Your task to perform on an android device: make emails show in primary in the gmail app Image 0: 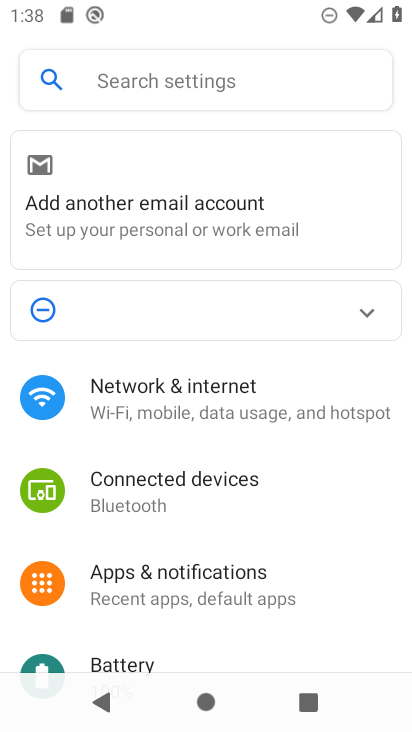
Step 0: press home button
Your task to perform on an android device: make emails show in primary in the gmail app Image 1: 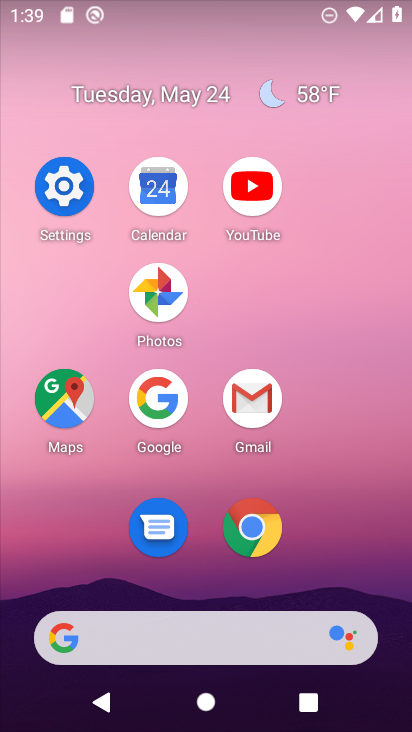
Step 1: click (255, 398)
Your task to perform on an android device: make emails show in primary in the gmail app Image 2: 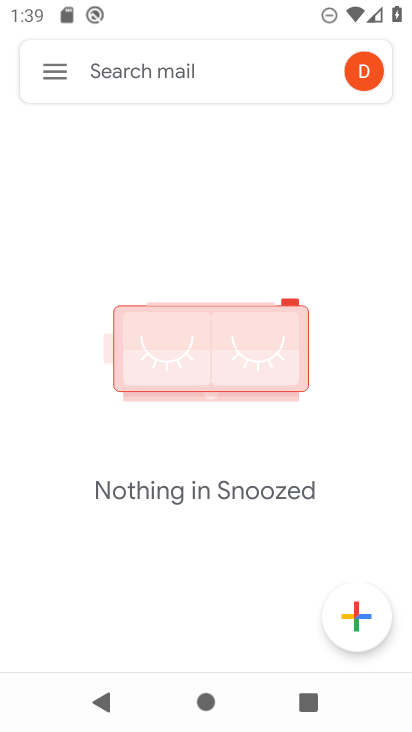
Step 2: click (58, 68)
Your task to perform on an android device: make emails show in primary in the gmail app Image 3: 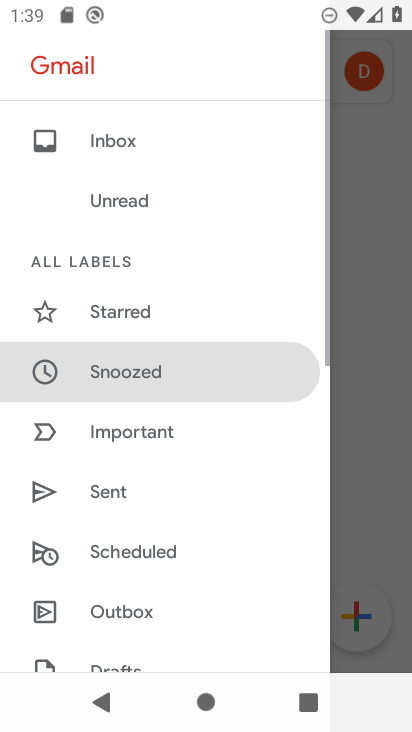
Step 3: drag from (158, 576) to (240, 209)
Your task to perform on an android device: make emails show in primary in the gmail app Image 4: 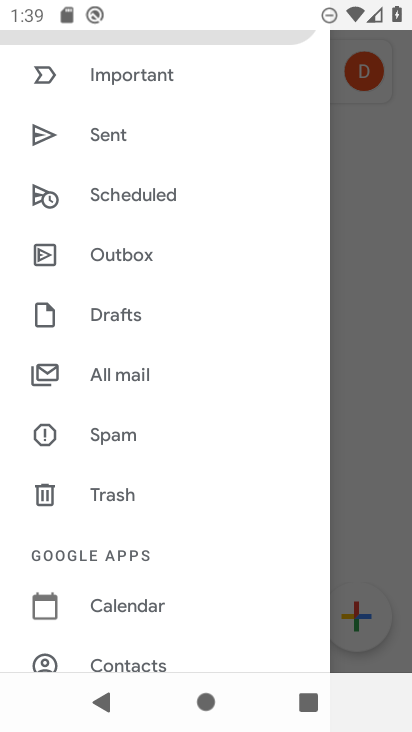
Step 4: drag from (132, 590) to (142, 261)
Your task to perform on an android device: make emails show in primary in the gmail app Image 5: 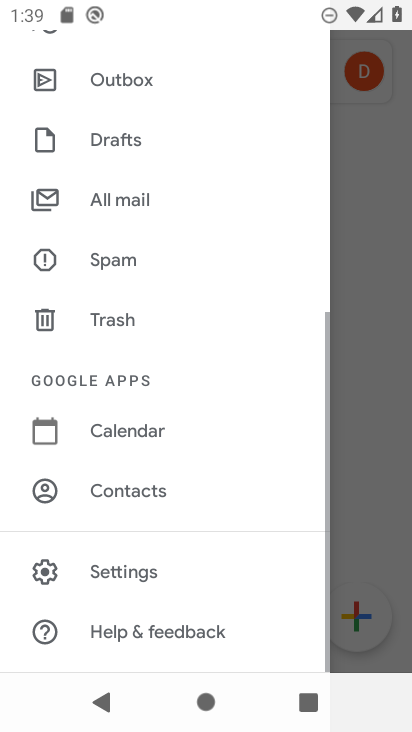
Step 5: click (133, 569)
Your task to perform on an android device: make emails show in primary in the gmail app Image 6: 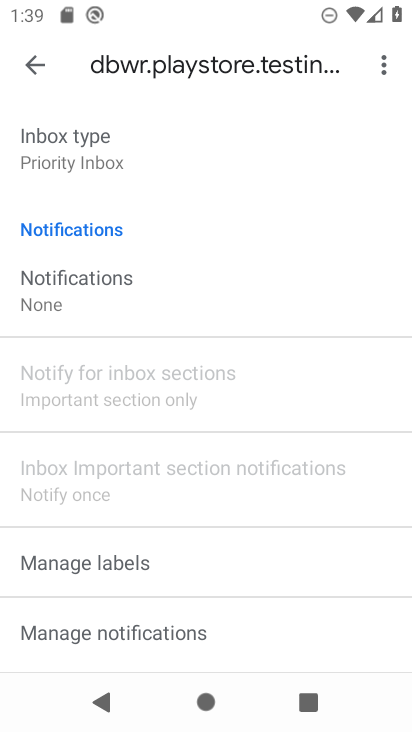
Step 6: drag from (133, 569) to (145, 193)
Your task to perform on an android device: make emails show in primary in the gmail app Image 7: 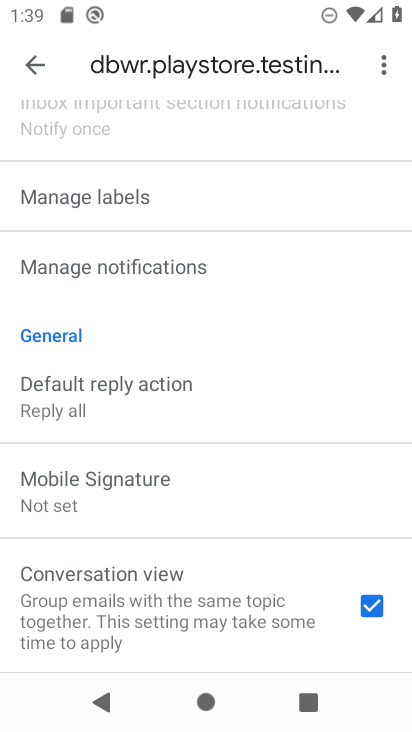
Step 7: drag from (143, 558) to (174, 186)
Your task to perform on an android device: make emails show in primary in the gmail app Image 8: 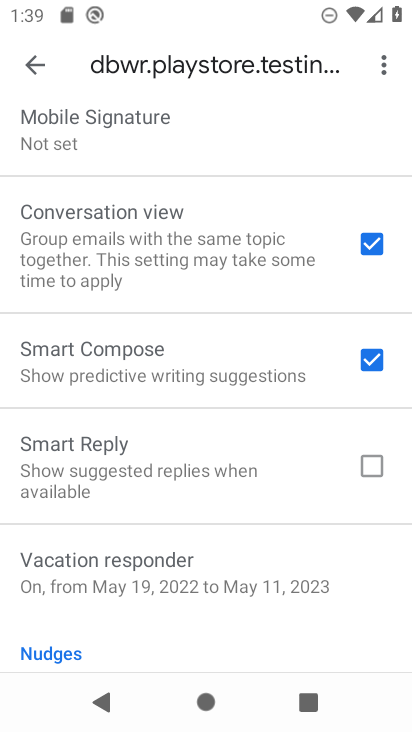
Step 8: drag from (184, 250) to (165, 657)
Your task to perform on an android device: make emails show in primary in the gmail app Image 9: 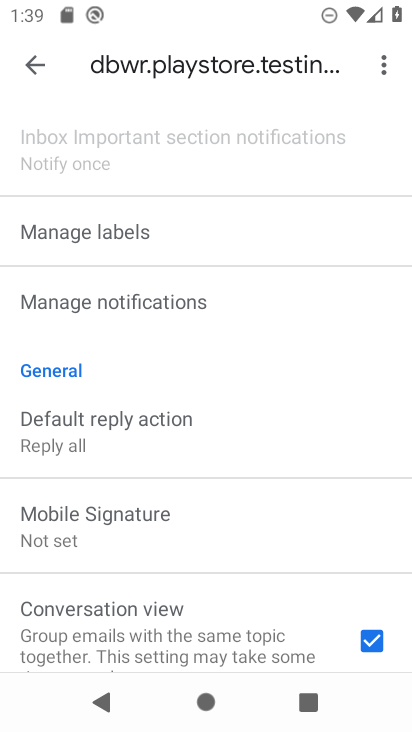
Step 9: drag from (239, 319) to (225, 650)
Your task to perform on an android device: make emails show in primary in the gmail app Image 10: 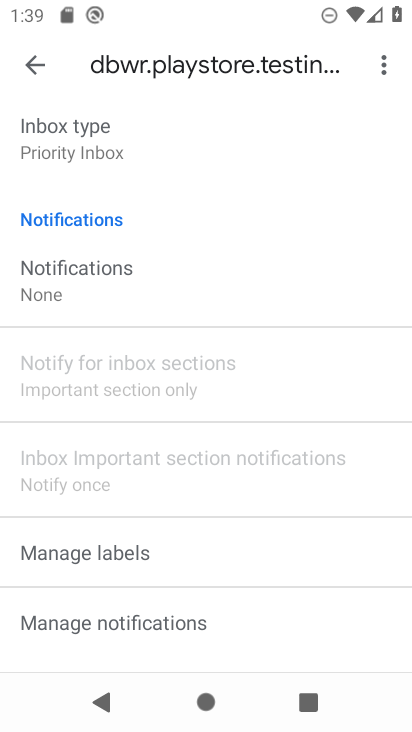
Step 10: drag from (198, 138) to (202, 284)
Your task to perform on an android device: make emails show in primary in the gmail app Image 11: 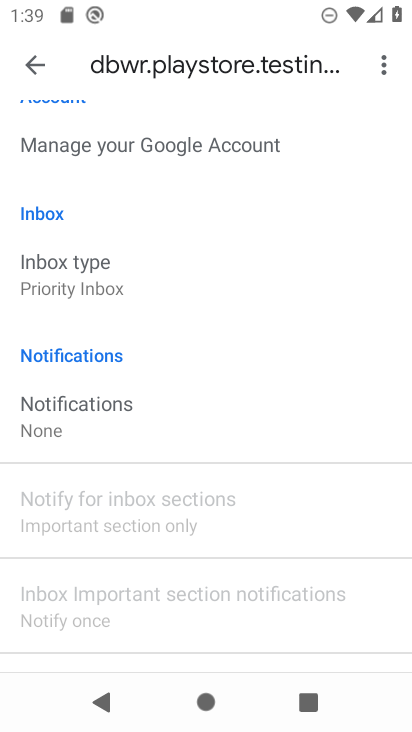
Step 11: click (144, 277)
Your task to perform on an android device: make emails show in primary in the gmail app Image 12: 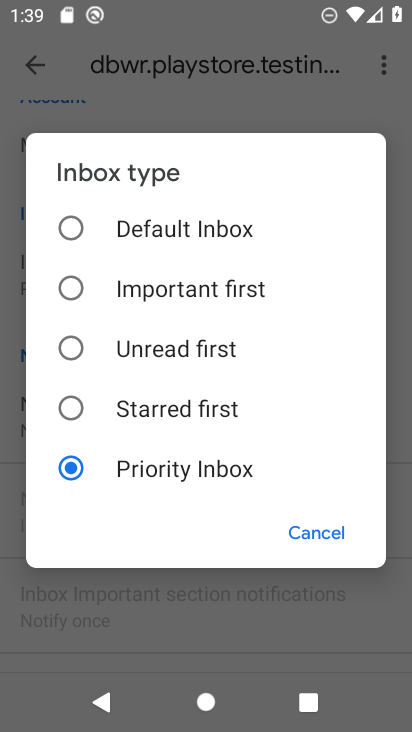
Step 12: click (152, 228)
Your task to perform on an android device: make emails show in primary in the gmail app Image 13: 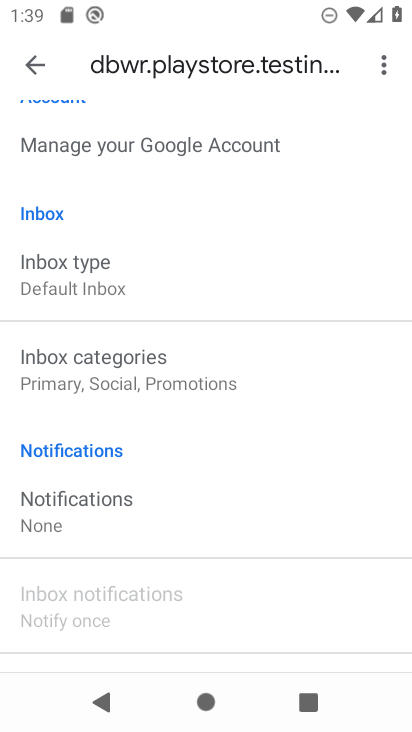
Step 13: click (128, 379)
Your task to perform on an android device: make emails show in primary in the gmail app Image 14: 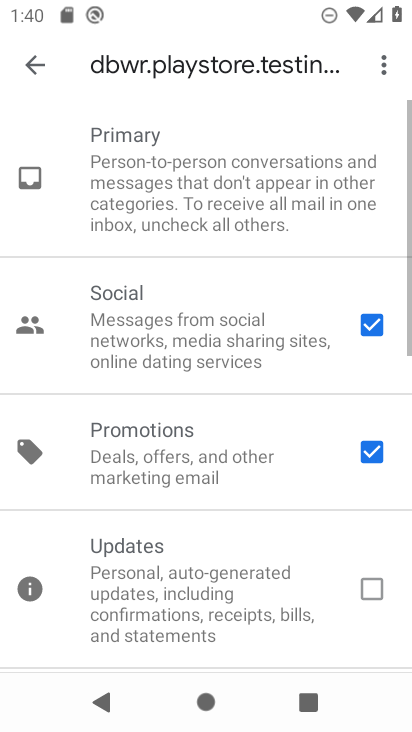
Step 14: click (360, 325)
Your task to perform on an android device: make emails show in primary in the gmail app Image 15: 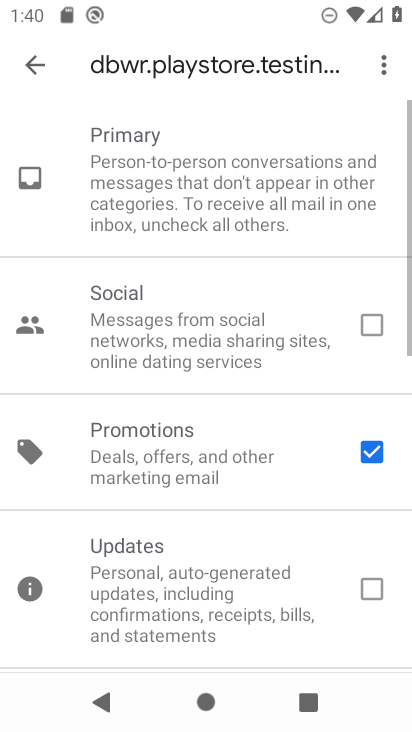
Step 15: click (380, 455)
Your task to perform on an android device: make emails show in primary in the gmail app Image 16: 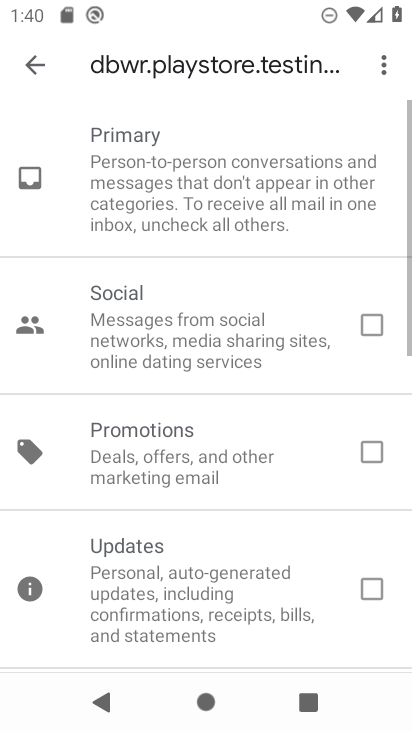
Step 16: task complete